Your task to perform on an android device: change keyboard looks Image 0: 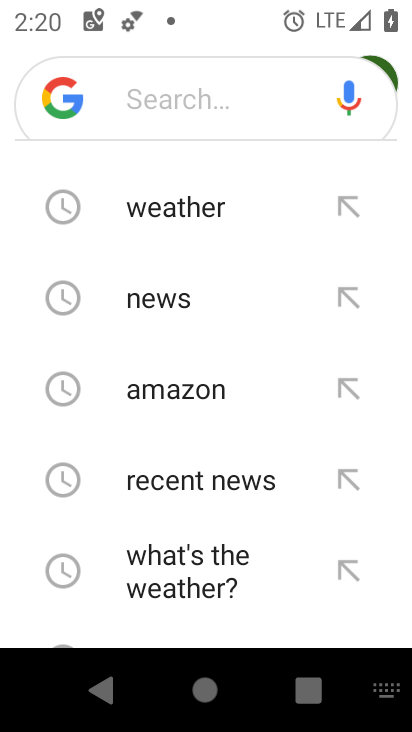
Step 0: press home button
Your task to perform on an android device: change keyboard looks Image 1: 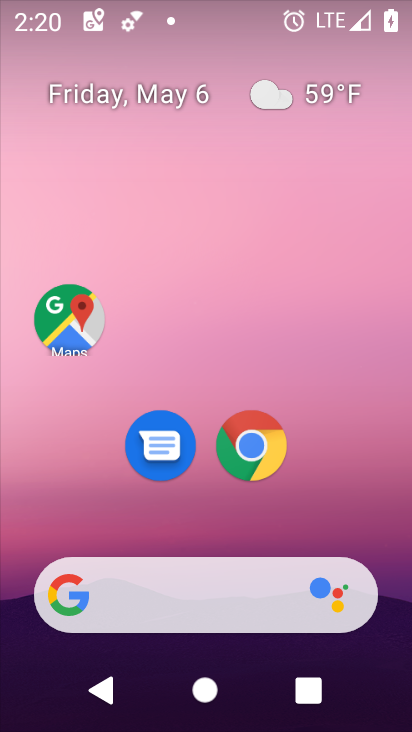
Step 1: drag from (321, 535) to (361, 85)
Your task to perform on an android device: change keyboard looks Image 2: 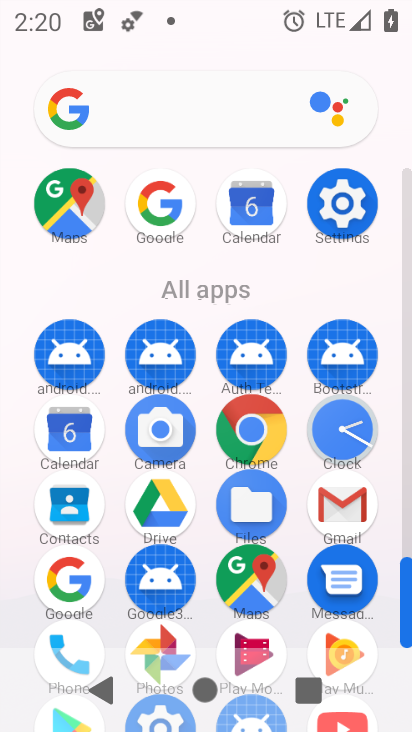
Step 2: click (339, 217)
Your task to perform on an android device: change keyboard looks Image 3: 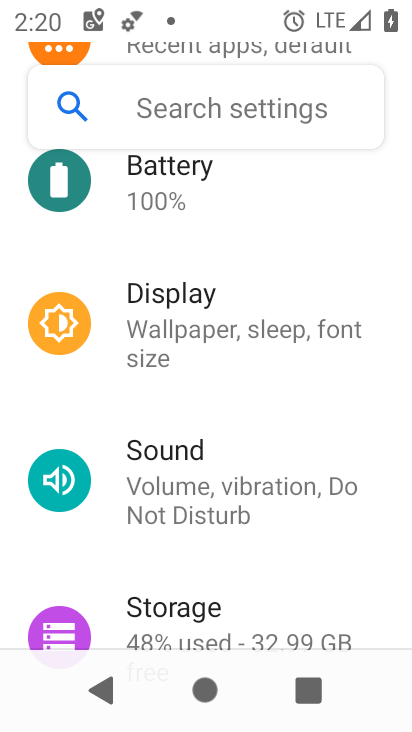
Step 3: drag from (302, 569) to (369, 330)
Your task to perform on an android device: change keyboard looks Image 4: 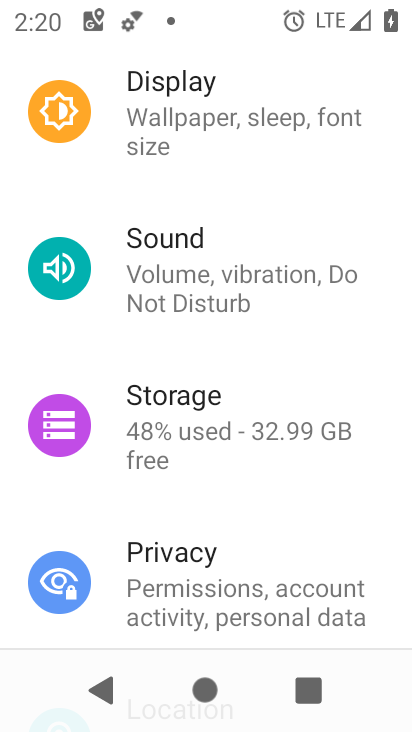
Step 4: drag from (236, 576) to (291, 342)
Your task to perform on an android device: change keyboard looks Image 5: 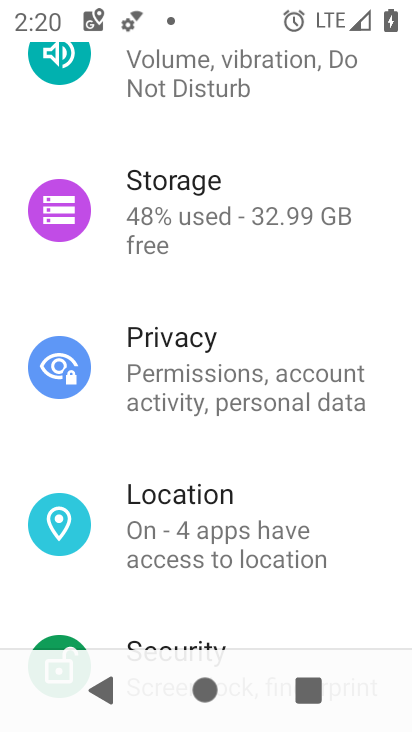
Step 5: drag from (289, 567) to (310, 379)
Your task to perform on an android device: change keyboard looks Image 6: 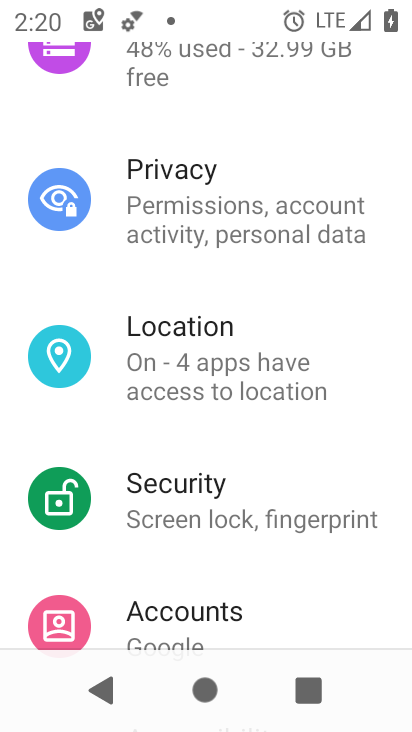
Step 6: drag from (284, 553) to (308, 410)
Your task to perform on an android device: change keyboard looks Image 7: 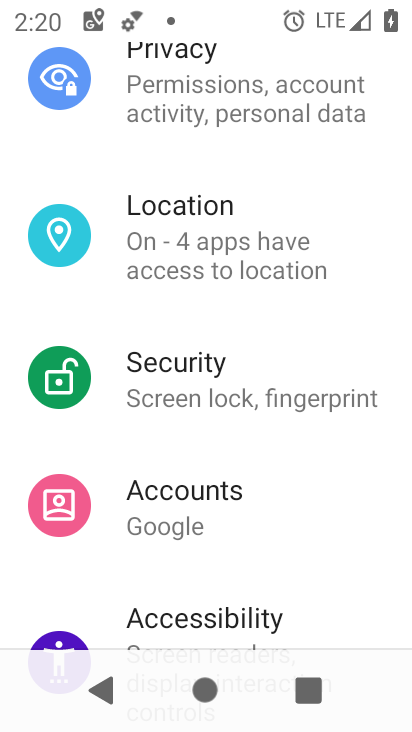
Step 7: drag from (297, 569) to (322, 384)
Your task to perform on an android device: change keyboard looks Image 8: 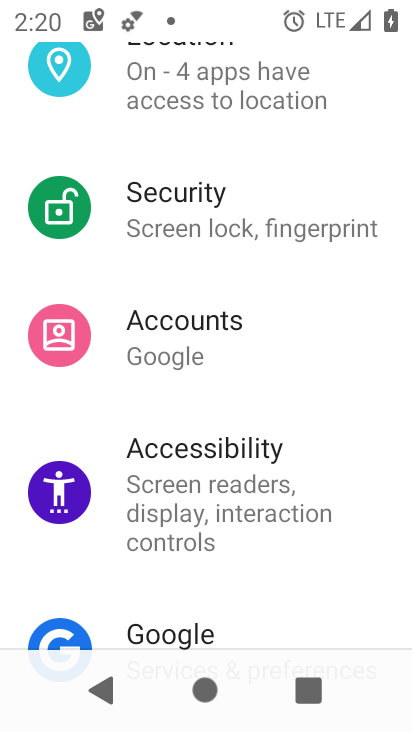
Step 8: drag from (293, 564) to (316, 339)
Your task to perform on an android device: change keyboard looks Image 9: 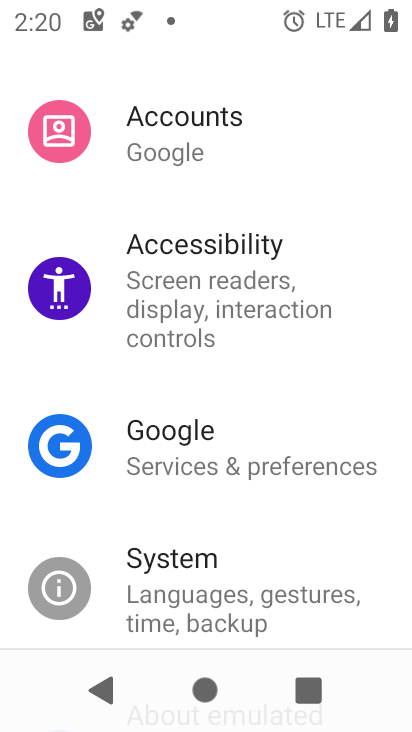
Step 9: click (204, 586)
Your task to perform on an android device: change keyboard looks Image 10: 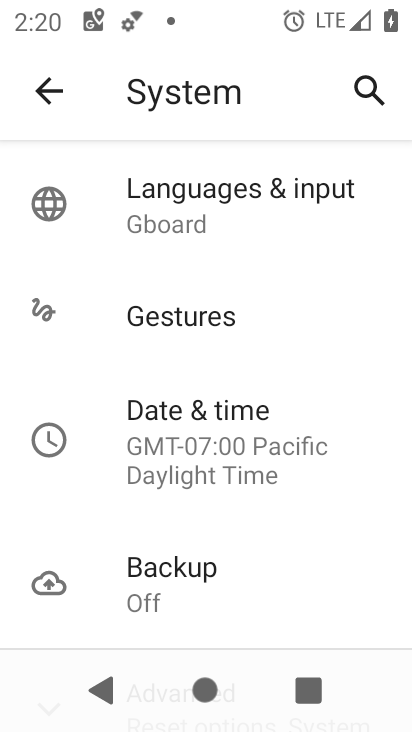
Step 10: click (269, 205)
Your task to perform on an android device: change keyboard looks Image 11: 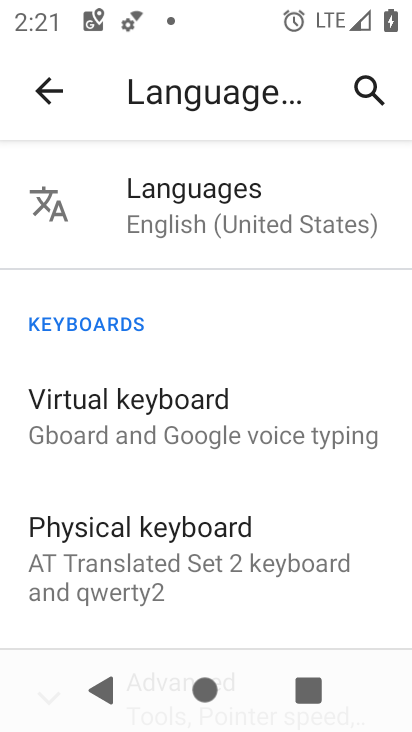
Step 11: click (223, 439)
Your task to perform on an android device: change keyboard looks Image 12: 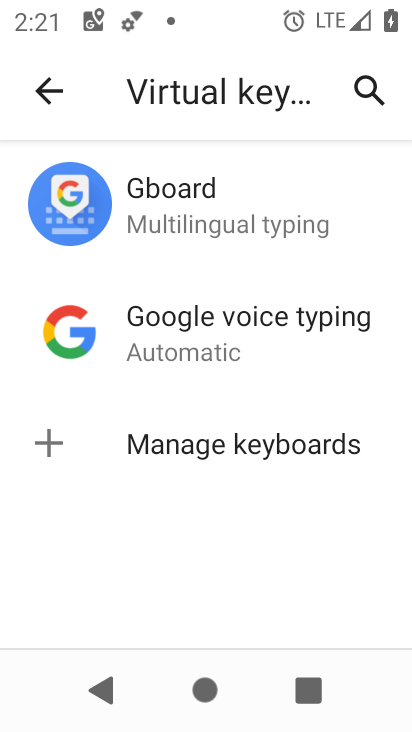
Step 12: click (276, 234)
Your task to perform on an android device: change keyboard looks Image 13: 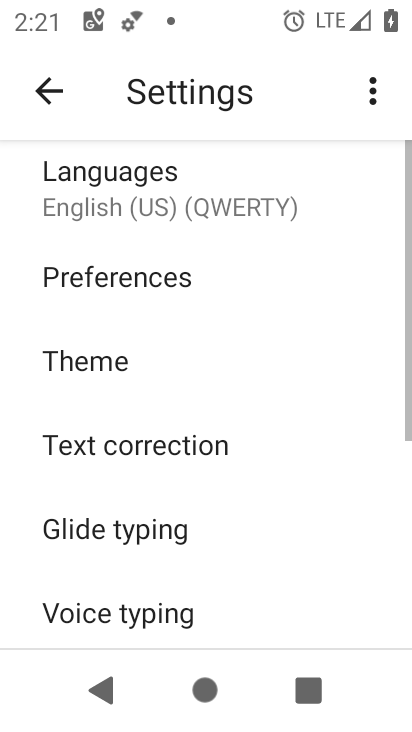
Step 13: click (141, 377)
Your task to perform on an android device: change keyboard looks Image 14: 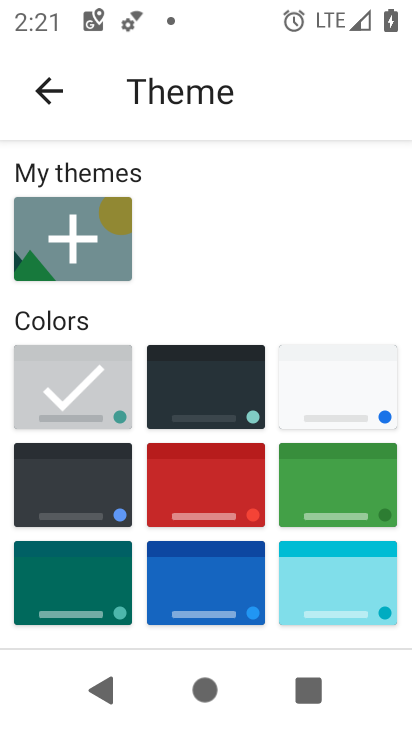
Step 14: click (189, 499)
Your task to perform on an android device: change keyboard looks Image 15: 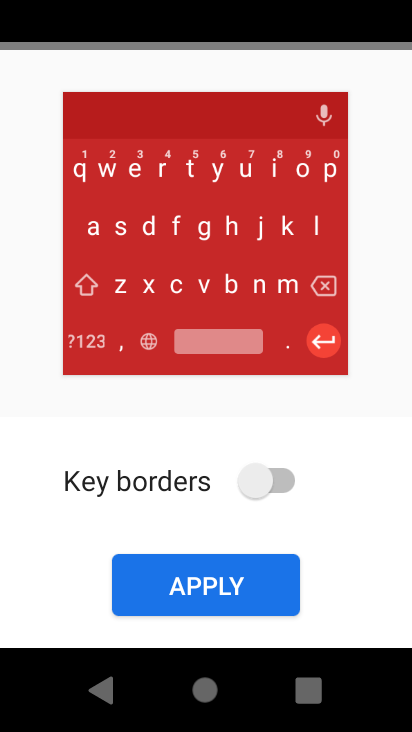
Step 15: click (210, 577)
Your task to perform on an android device: change keyboard looks Image 16: 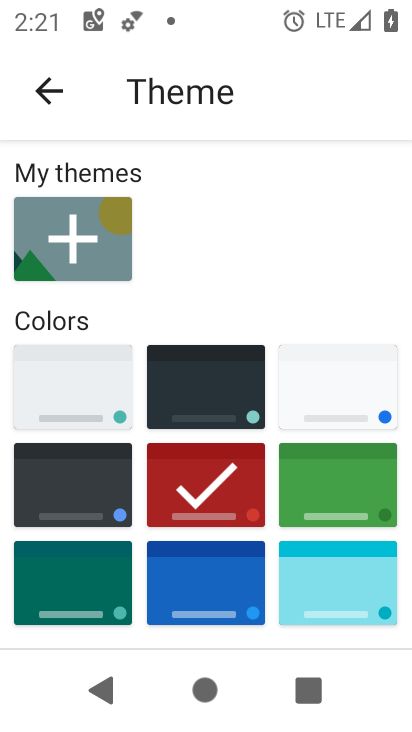
Step 16: task complete